Your task to perform on an android device: check the backup settings in the google photos Image 0: 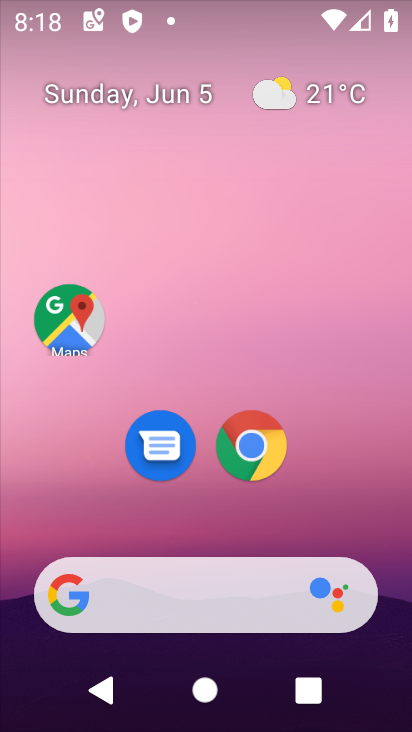
Step 0: press home button
Your task to perform on an android device: check the backup settings in the google photos Image 1: 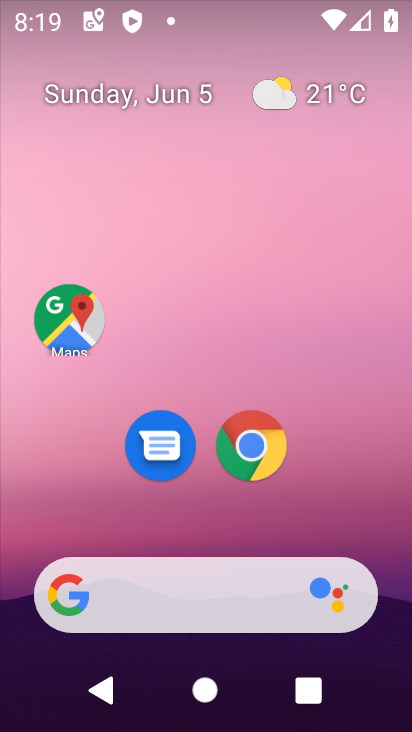
Step 1: drag from (308, 521) to (273, 126)
Your task to perform on an android device: check the backup settings in the google photos Image 2: 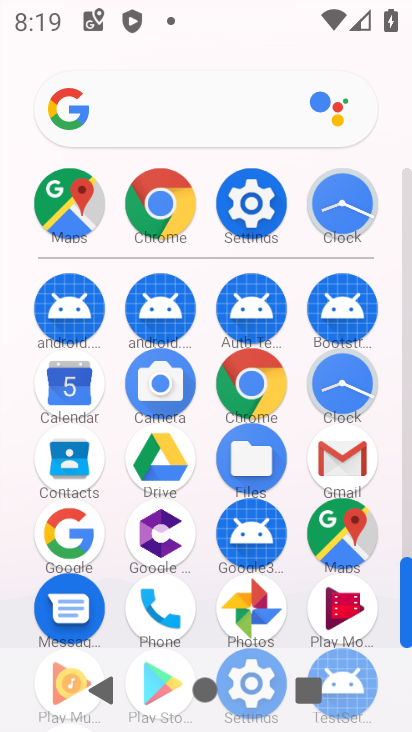
Step 2: click (252, 601)
Your task to perform on an android device: check the backup settings in the google photos Image 3: 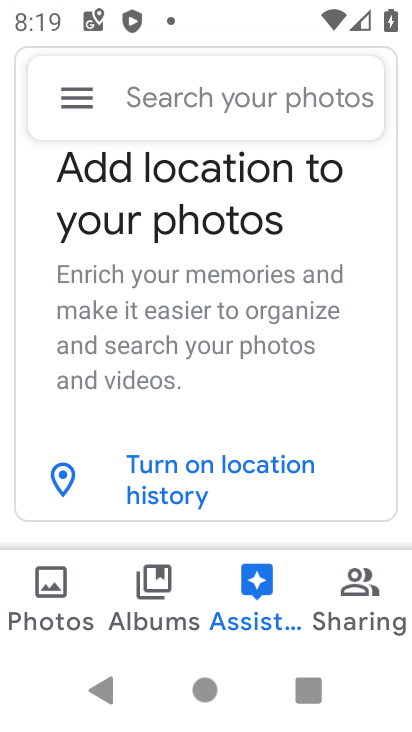
Step 3: click (64, 97)
Your task to perform on an android device: check the backup settings in the google photos Image 4: 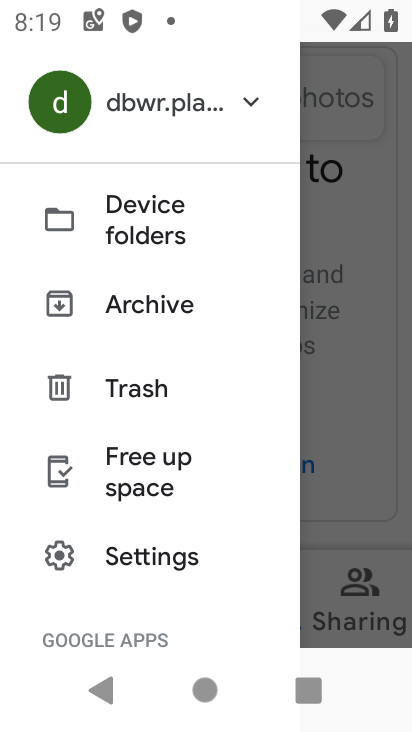
Step 4: click (136, 560)
Your task to perform on an android device: check the backup settings in the google photos Image 5: 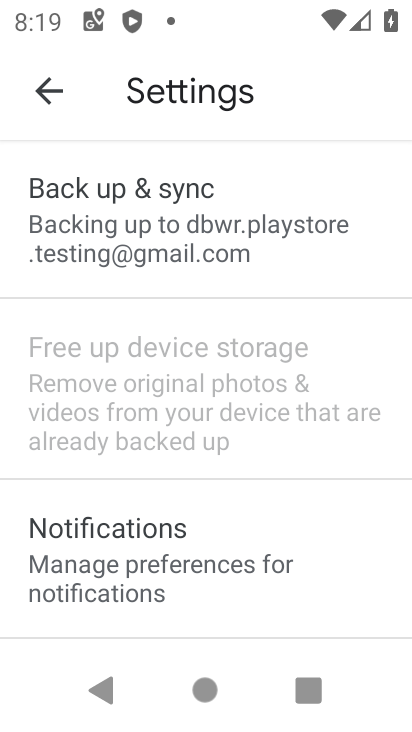
Step 5: click (122, 183)
Your task to perform on an android device: check the backup settings in the google photos Image 6: 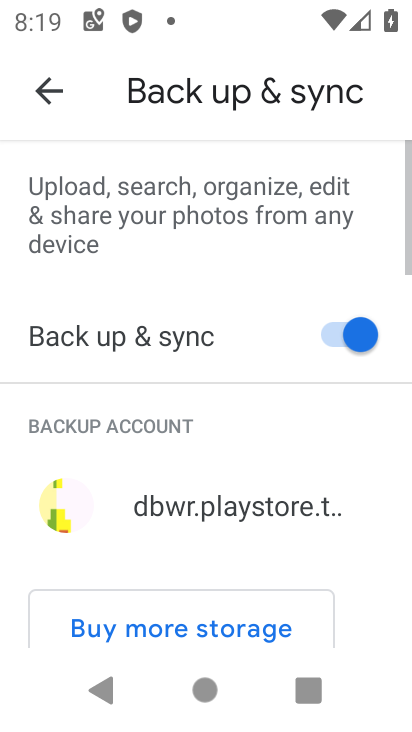
Step 6: task complete